Your task to perform on an android device: make emails show in primary in the gmail app Image 0: 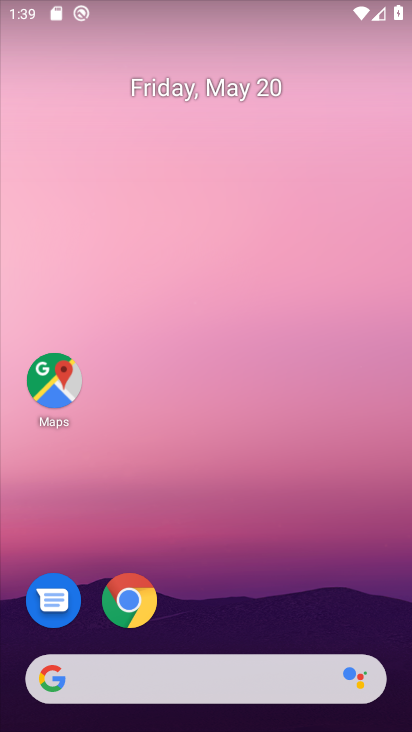
Step 0: drag from (216, 612) to (304, 34)
Your task to perform on an android device: make emails show in primary in the gmail app Image 1: 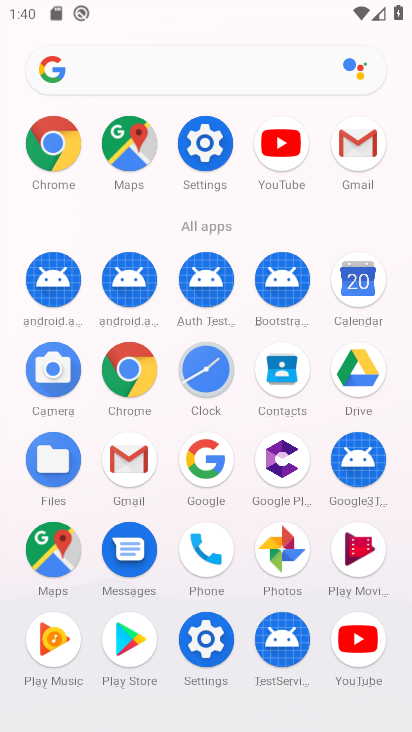
Step 1: click (144, 479)
Your task to perform on an android device: make emails show in primary in the gmail app Image 2: 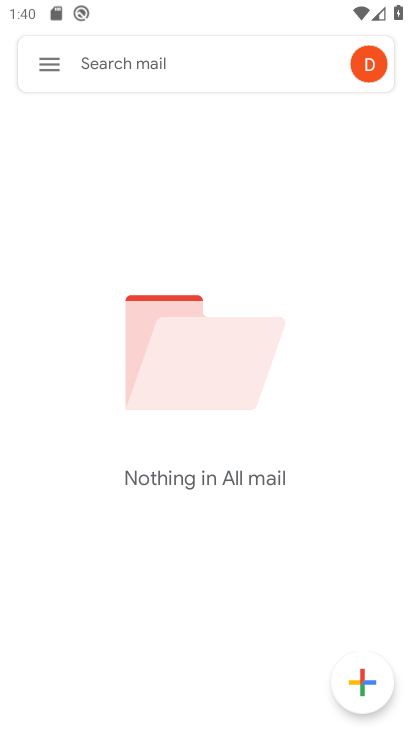
Step 2: click (42, 69)
Your task to perform on an android device: make emails show in primary in the gmail app Image 3: 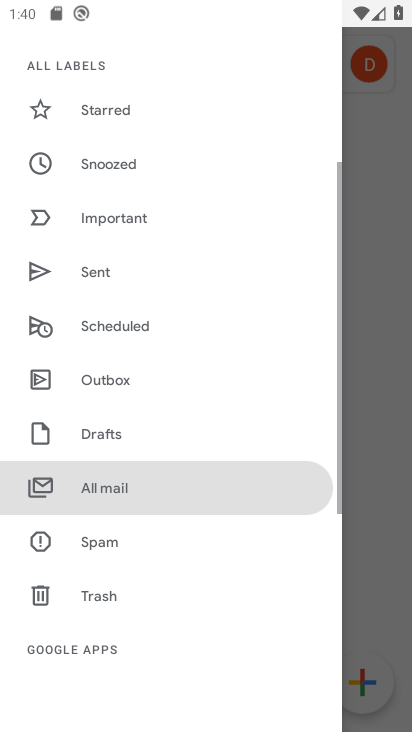
Step 3: drag from (128, 644) to (160, 229)
Your task to perform on an android device: make emails show in primary in the gmail app Image 4: 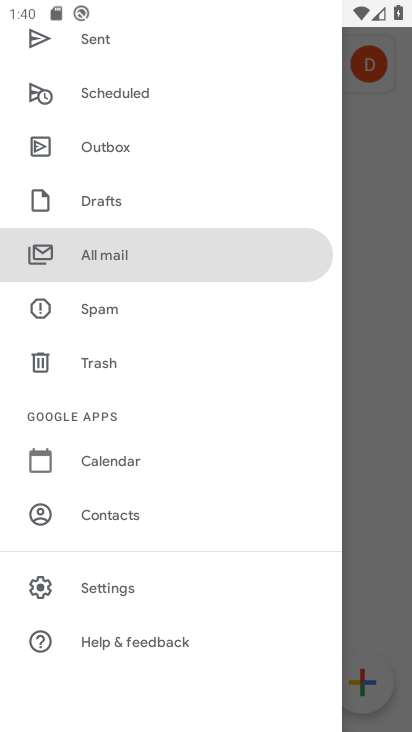
Step 4: click (116, 589)
Your task to perform on an android device: make emails show in primary in the gmail app Image 5: 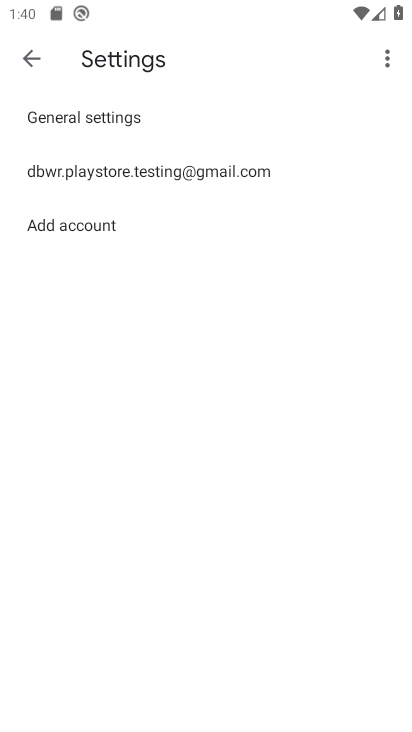
Step 5: click (84, 171)
Your task to perform on an android device: make emails show in primary in the gmail app Image 6: 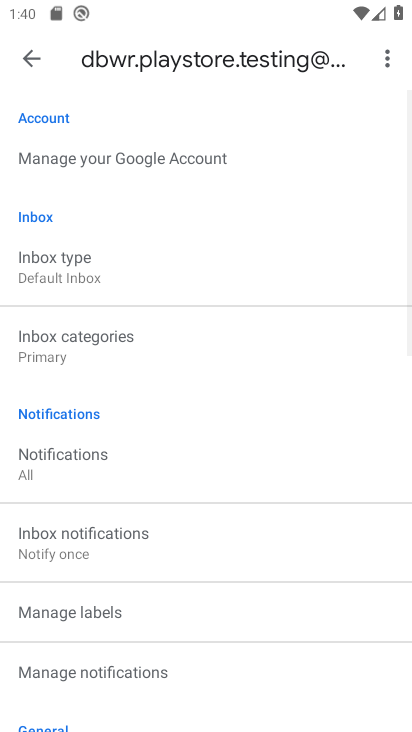
Step 6: click (103, 269)
Your task to perform on an android device: make emails show in primary in the gmail app Image 7: 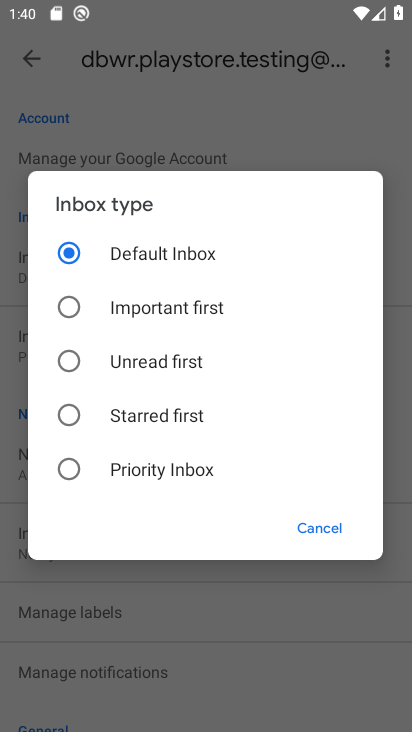
Step 7: click (333, 539)
Your task to perform on an android device: make emails show in primary in the gmail app Image 8: 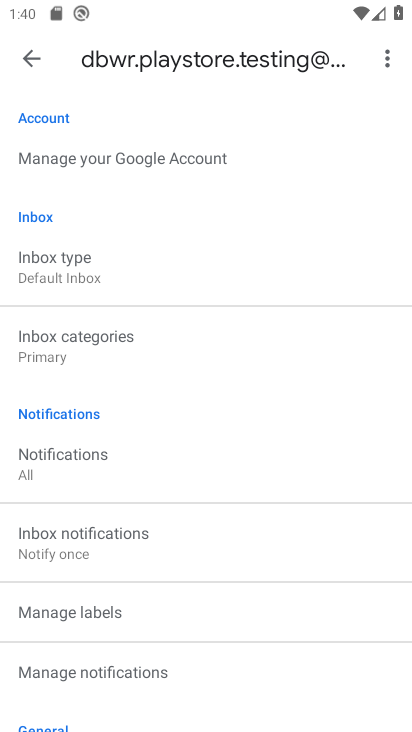
Step 8: task complete